Your task to perform on an android device: check battery use Image 0: 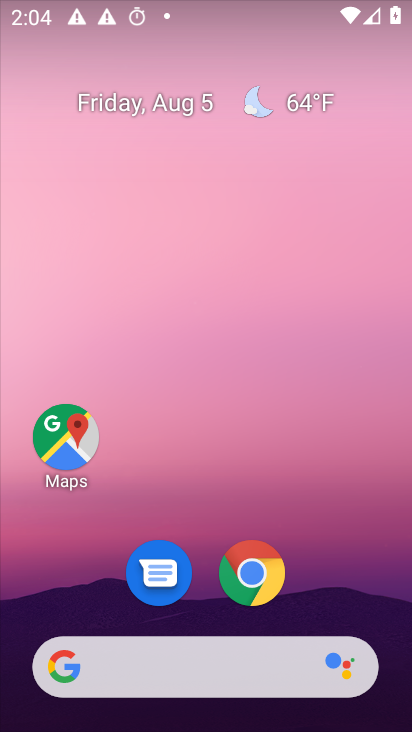
Step 0: drag from (336, 583) to (364, 110)
Your task to perform on an android device: check battery use Image 1: 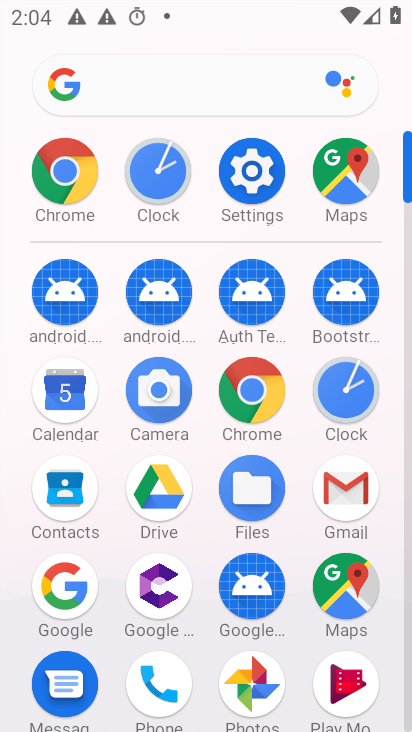
Step 1: click (261, 171)
Your task to perform on an android device: check battery use Image 2: 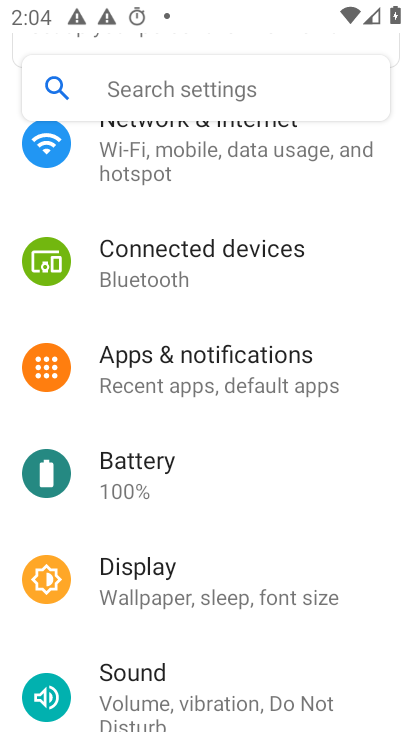
Step 2: click (176, 468)
Your task to perform on an android device: check battery use Image 3: 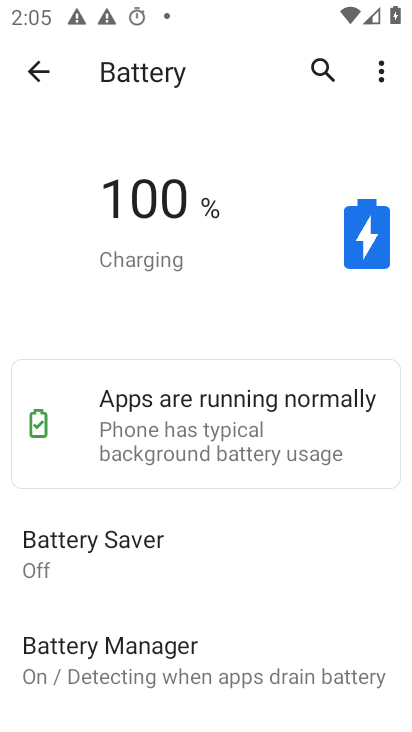
Step 3: click (382, 75)
Your task to perform on an android device: check battery use Image 4: 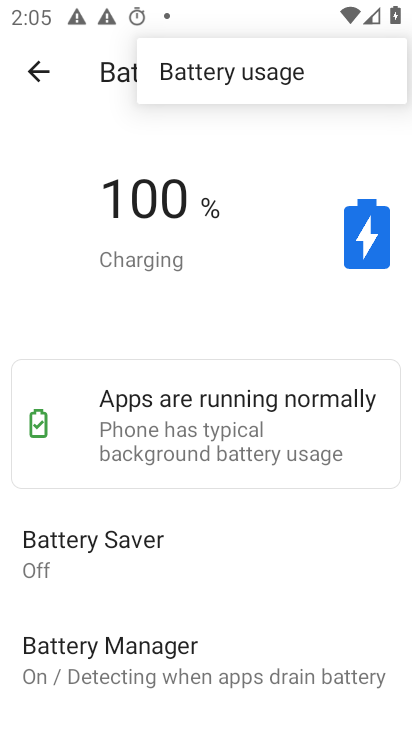
Step 4: click (230, 67)
Your task to perform on an android device: check battery use Image 5: 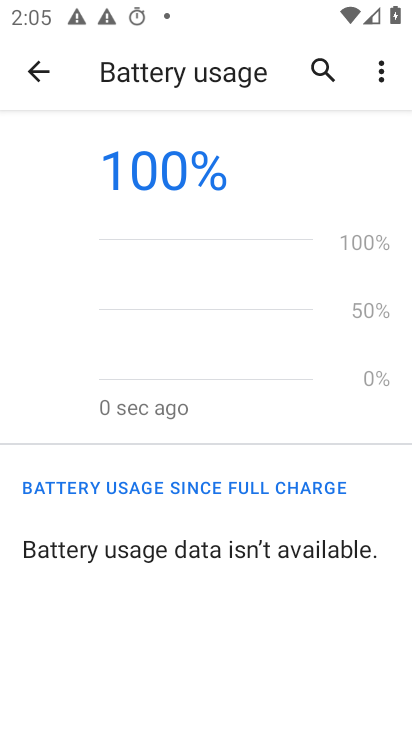
Step 5: task complete